Your task to perform on an android device: turn on notifications settings in the gmail app Image 0: 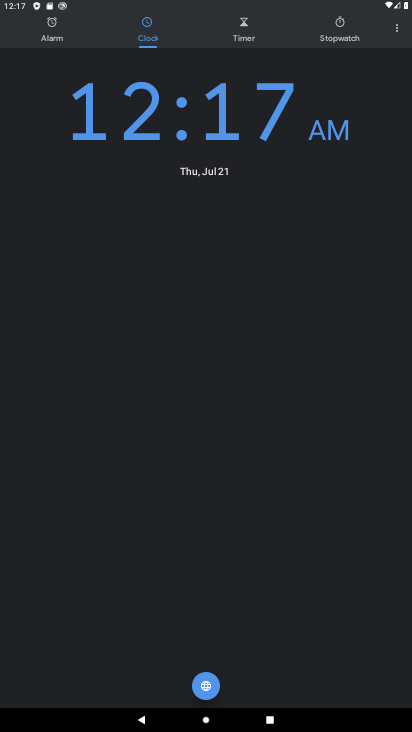
Step 0: task complete